Your task to perform on an android device: Search for vegetarian restaurants on Maps Image 0: 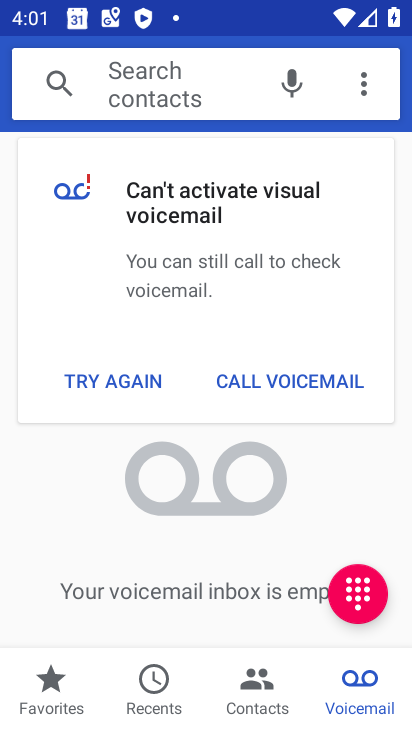
Step 0: press back button
Your task to perform on an android device: Search for vegetarian restaurants on Maps Image 1: 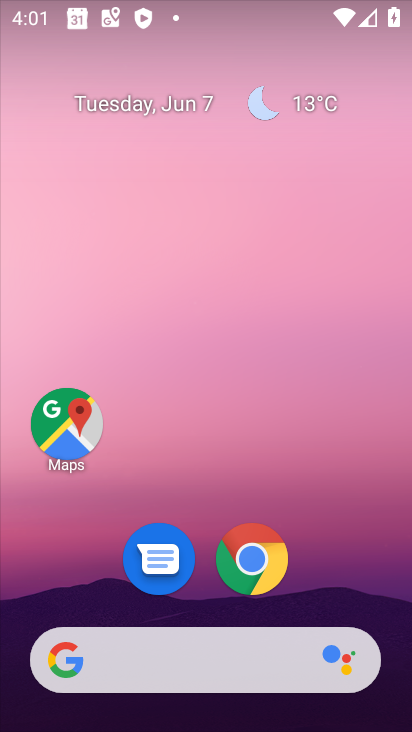
Step 1: click (63, 433)
Your task to perform on an android device: Search for vegetarian restaurants on Maps Image 2: 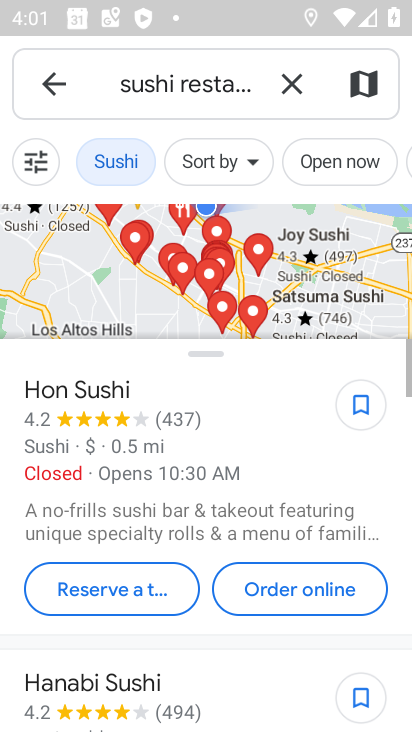
Step 2: click (294, 84)
Your task to perform on an android device: Search for vegetarian restaurants on Maps Image 3: 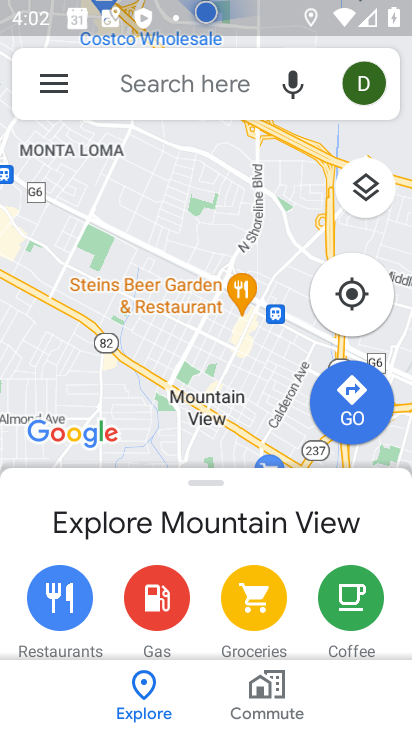
Step 3: type "vegetarian restaurants"
Your task to perform on an android device: Search for vegetarian restaurants on Maps Image 4: 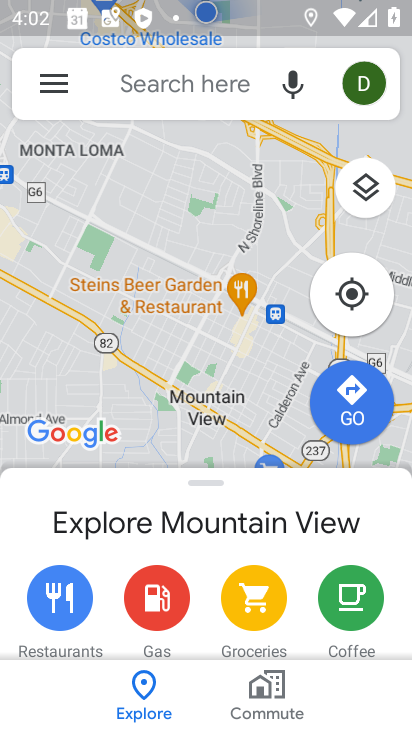
Step 4: click (186, 85)
Your task to perform on an android device: Search for vegetarian restaurants on Maps Image 5: 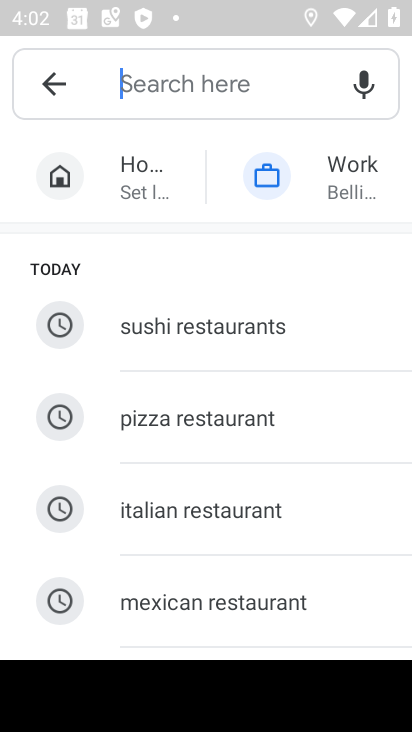
Step 5: type "vegetarian restaurants"
Your task to perform on an android device: Search for vegetarian restaurants on Maps Image 6: 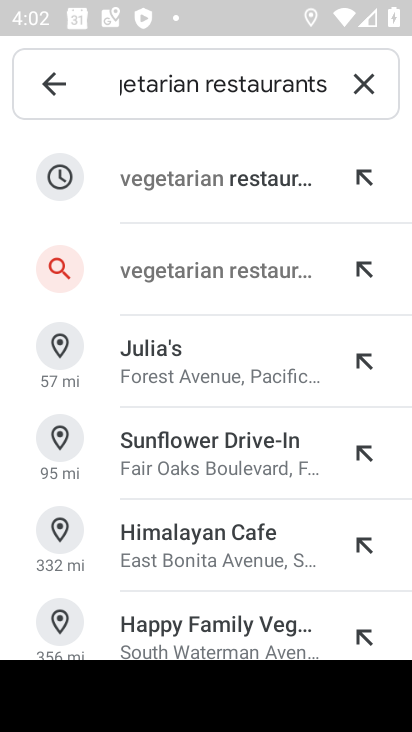
Step 6: click (266, 194)
Your task to perform on an android device: Search for vegetarian restaurants on Maps Image 7: 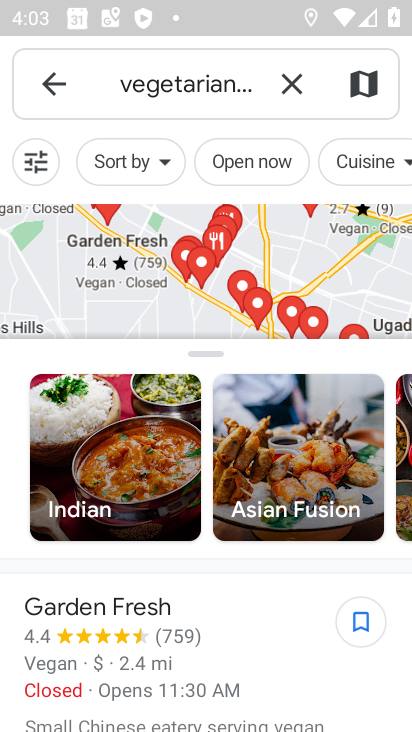
Step 7: task complete